Your task to perform on an android device: change timer sound Image 0: 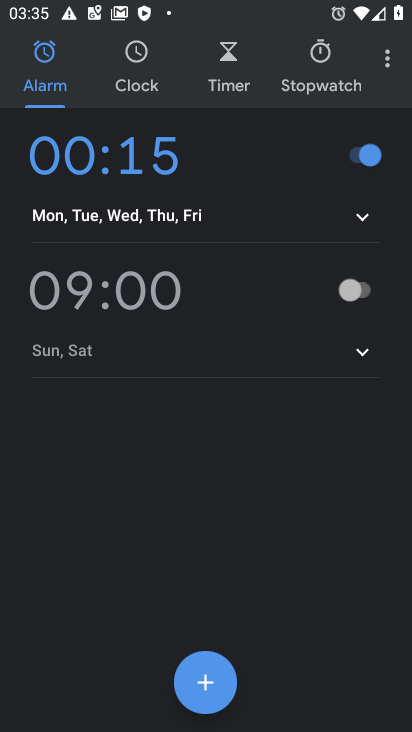
Step 0: press home button
Your task to perform on an android device: change timer sound Image 1: 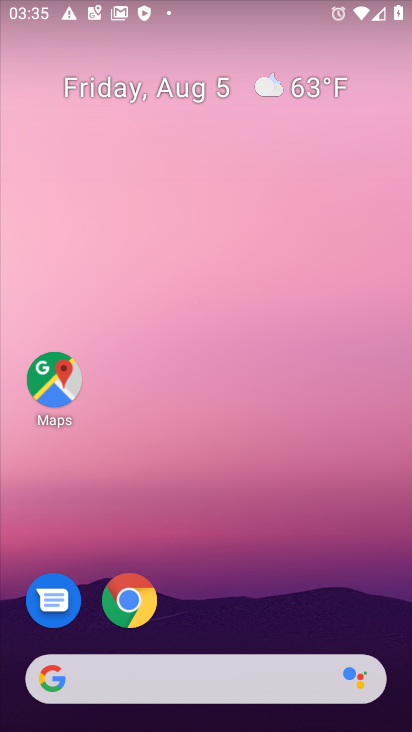
Step 1: drag from (213, 668) to (222, 171)
Your task to perform on an android device: change timer sound Image 2: 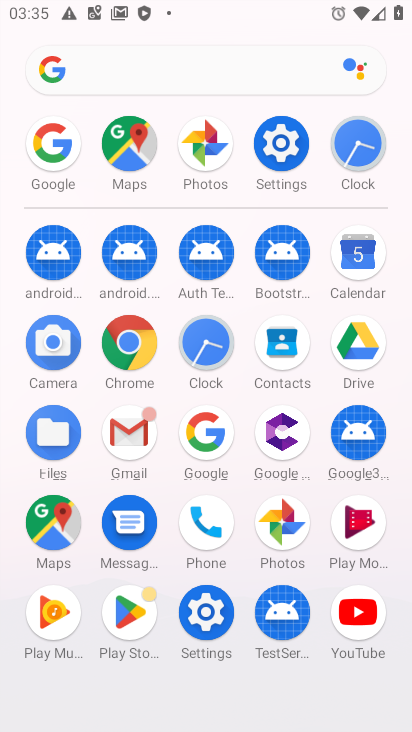
Step 2: click (209, 341)
Your task to perform on an android device: change timer sound Image 3: 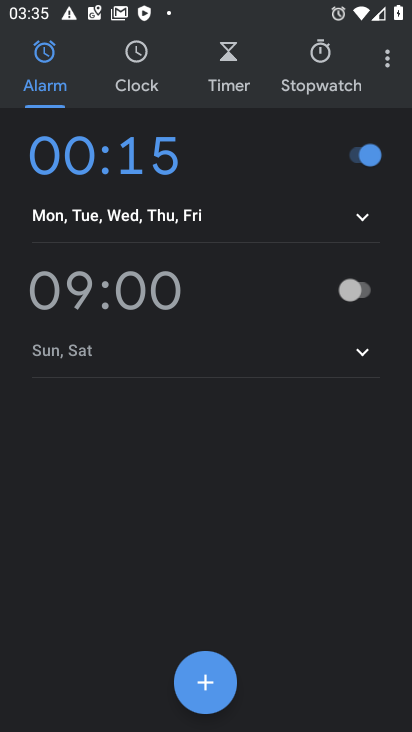
Step 3: click (390, 63)
Your task to perform on an android device: change timer sound Image 4: 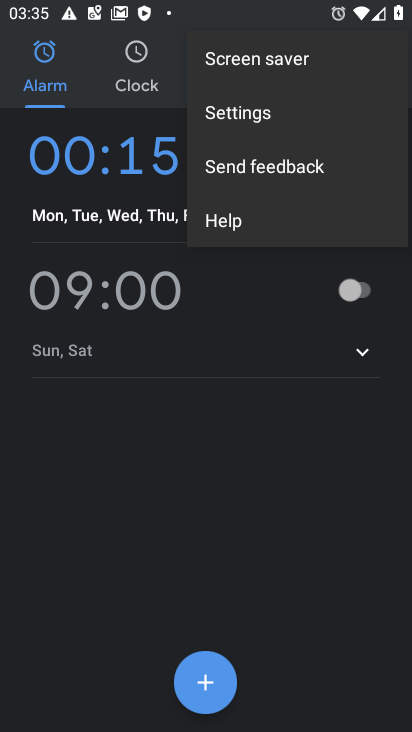
Step 4: click (267, 116)
Your task to perform on an android device: change timer sound Image 5: 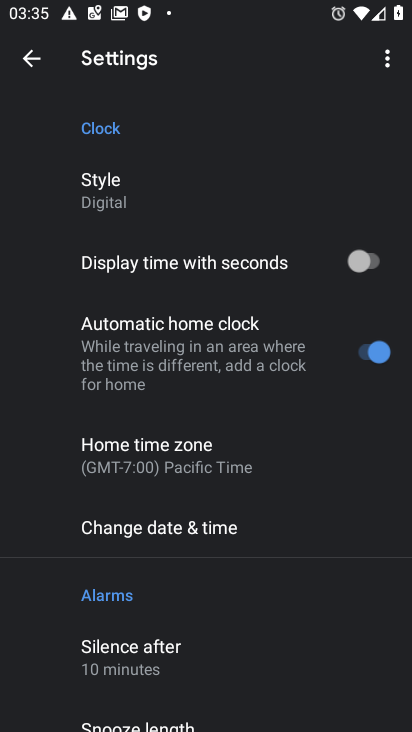
Step 5: drag from (183, 593) to (250, 465)
Your task to perform on an android device: change timer sound Image 6: 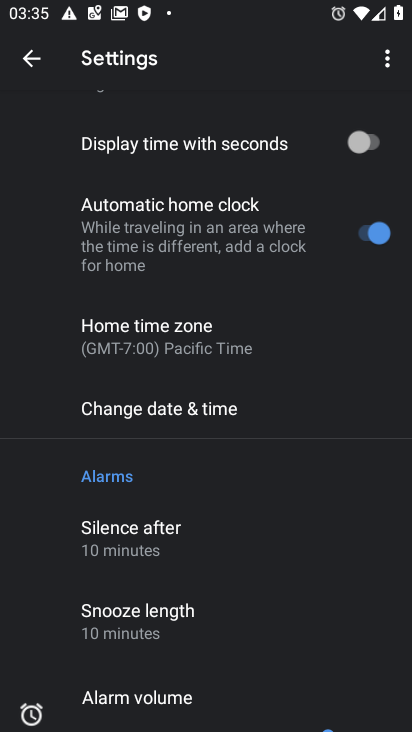
Step 6: drag from (198, 650) to (289, 532)
Your task to perform on an android device: change timer sound Image 7: 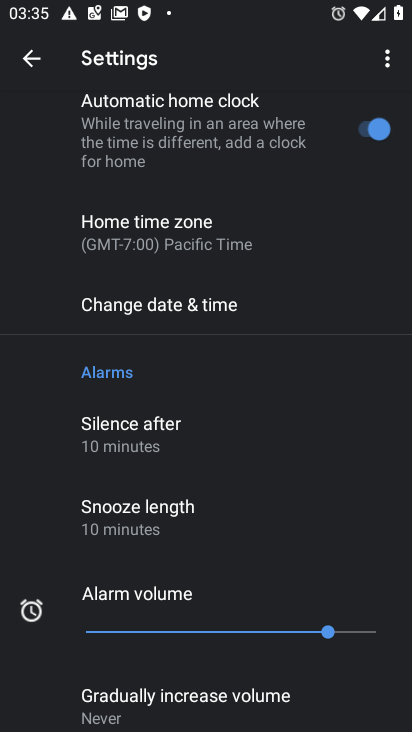
Step 7: drag from (231, 626) to (291, 509)
Your task to perform on an android device: change timer sound Image 8: 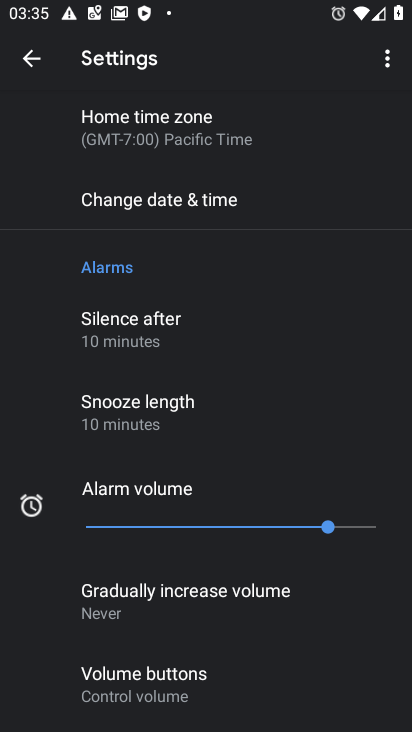
Step 8: drag from (232, 612) to (310, 481)
Your task to perform on an android device: change timer sound Image 9: 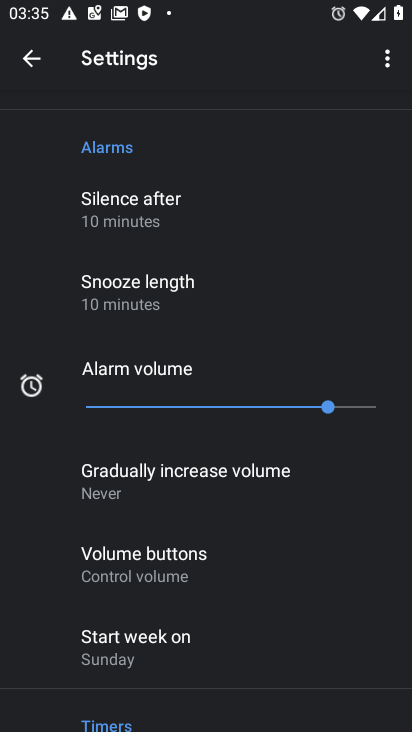
Step 9: drag from (242, 634) to (340, 502)
Your task to perform on an android device: change timer sound Image 10: 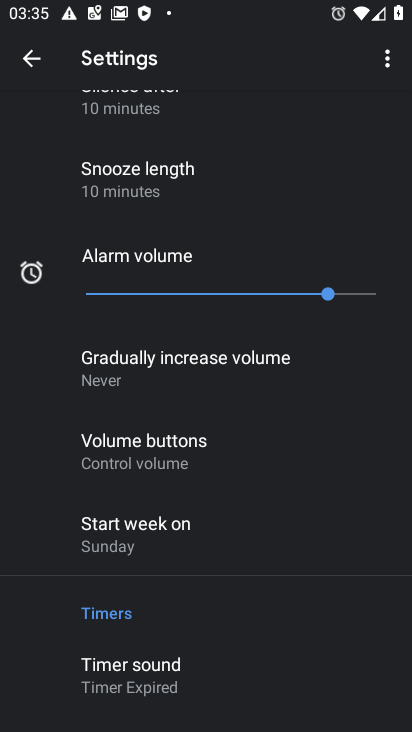
Step 10: click (175, 677)
Your task to perform on an android device: change timer sound Image 11: 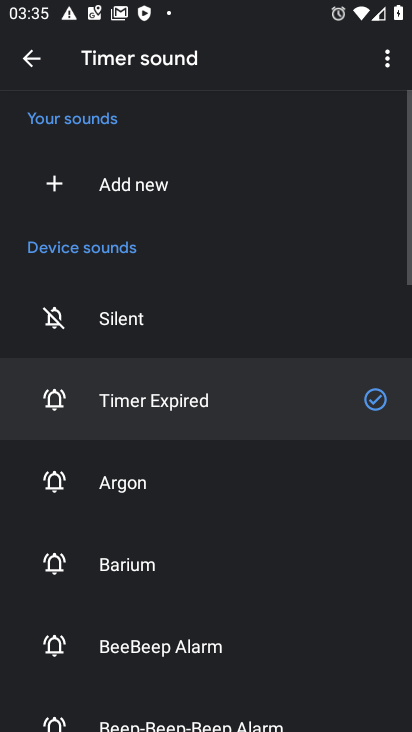
Step 11: drag from (169, 602) to (259, 367)
Your task to perform on an android device: change timer sound Image 12: 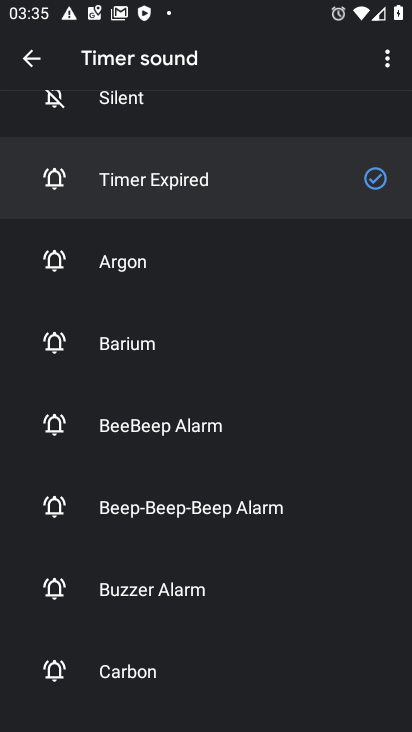
Step 12: drag from (208, 554) to (279, 353)
Your task to perform on an android device: change timer sound Image 13: 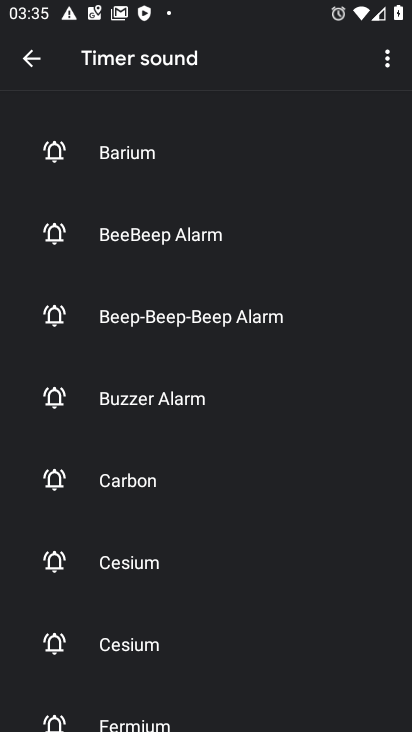
Step 13: click (205, 396)
Your task to perform on an android device: change timer sound Image 14: 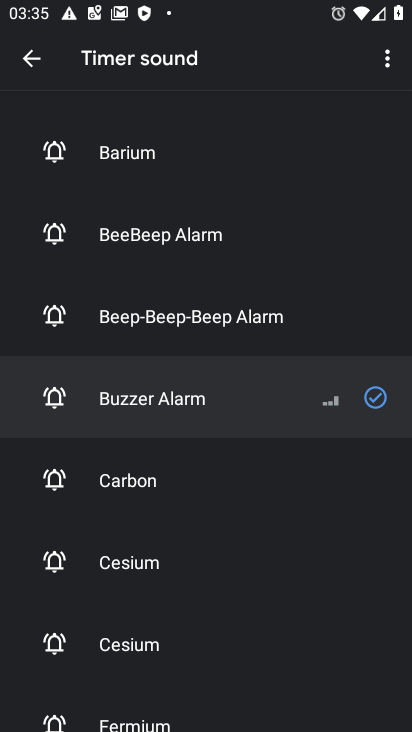
Step 14: task complete